Your task to perform on an android device: turn off data saver in the chrome app Image 0: 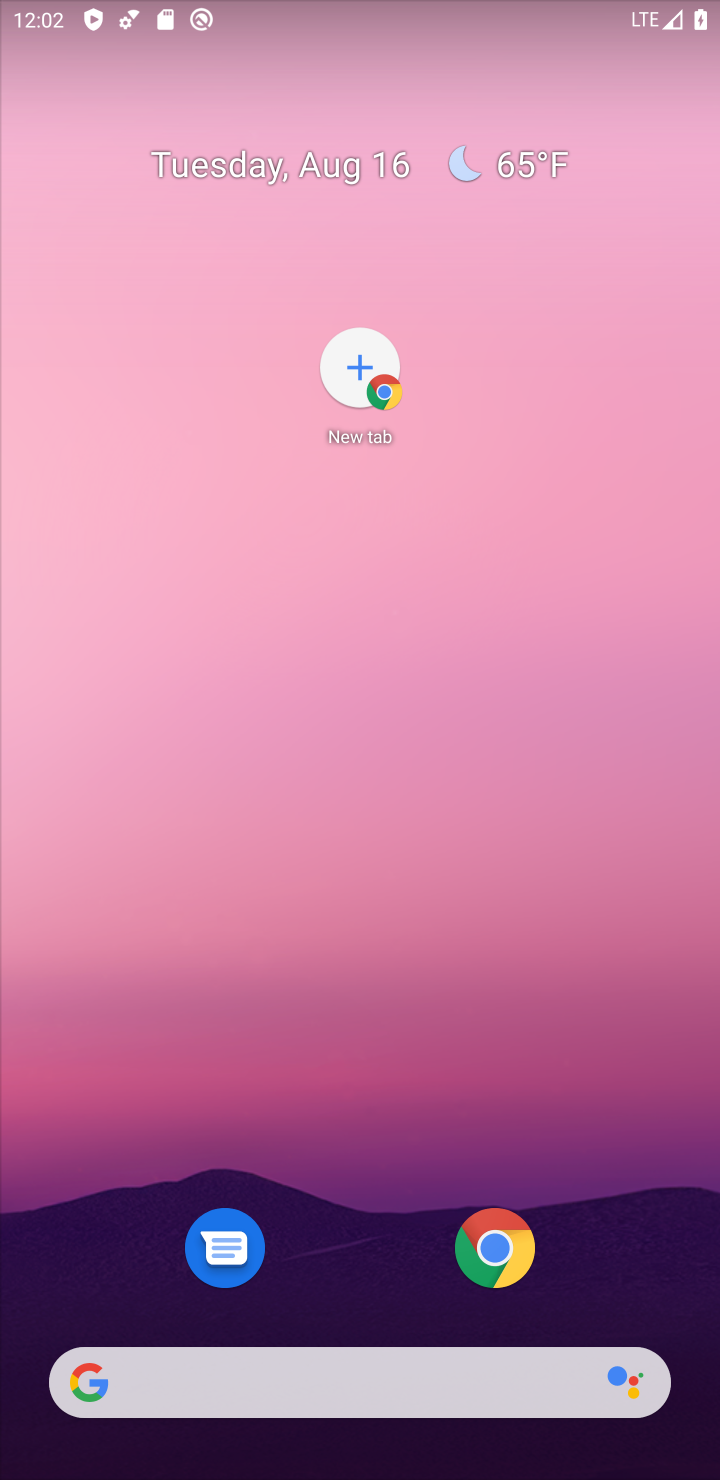
Step 0: click (516, 1268)
Your task to perform on an android device: turn off data saver in the chrome app Image 1: 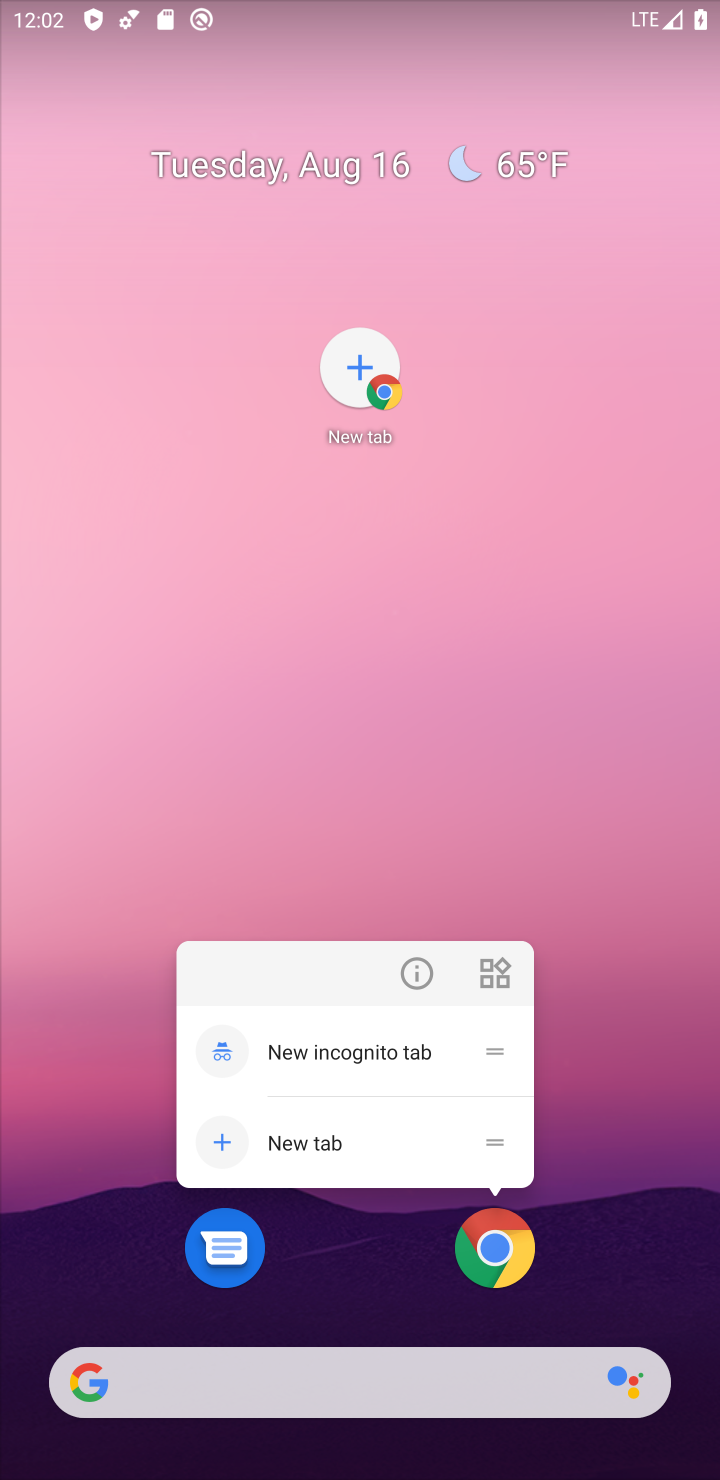
Step 1: click (491, 1266)
Your task to perform on an android device: turn off data saver in the chrome app Image 2: 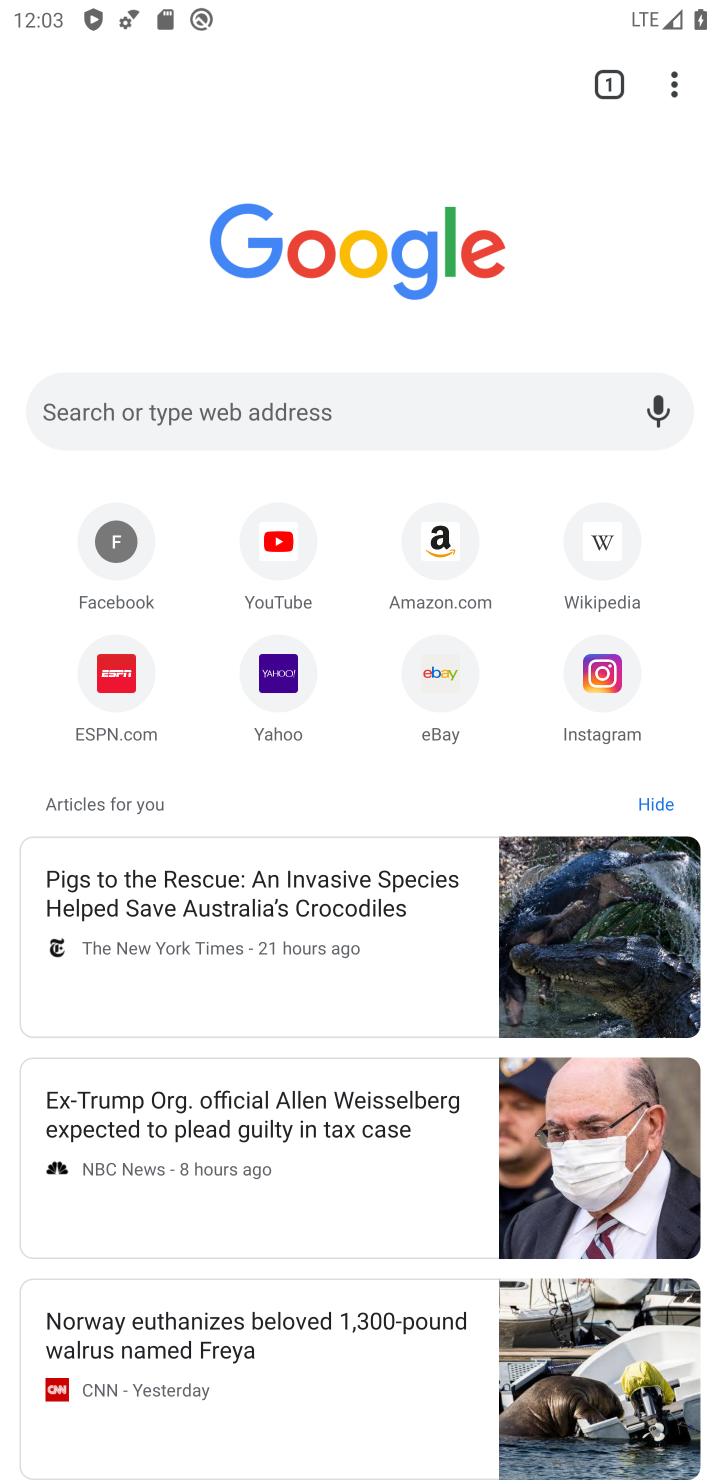
Step 2: click (672, 71)
Your task to perform on an android device: turn off data saver in the chrome app Image 3: 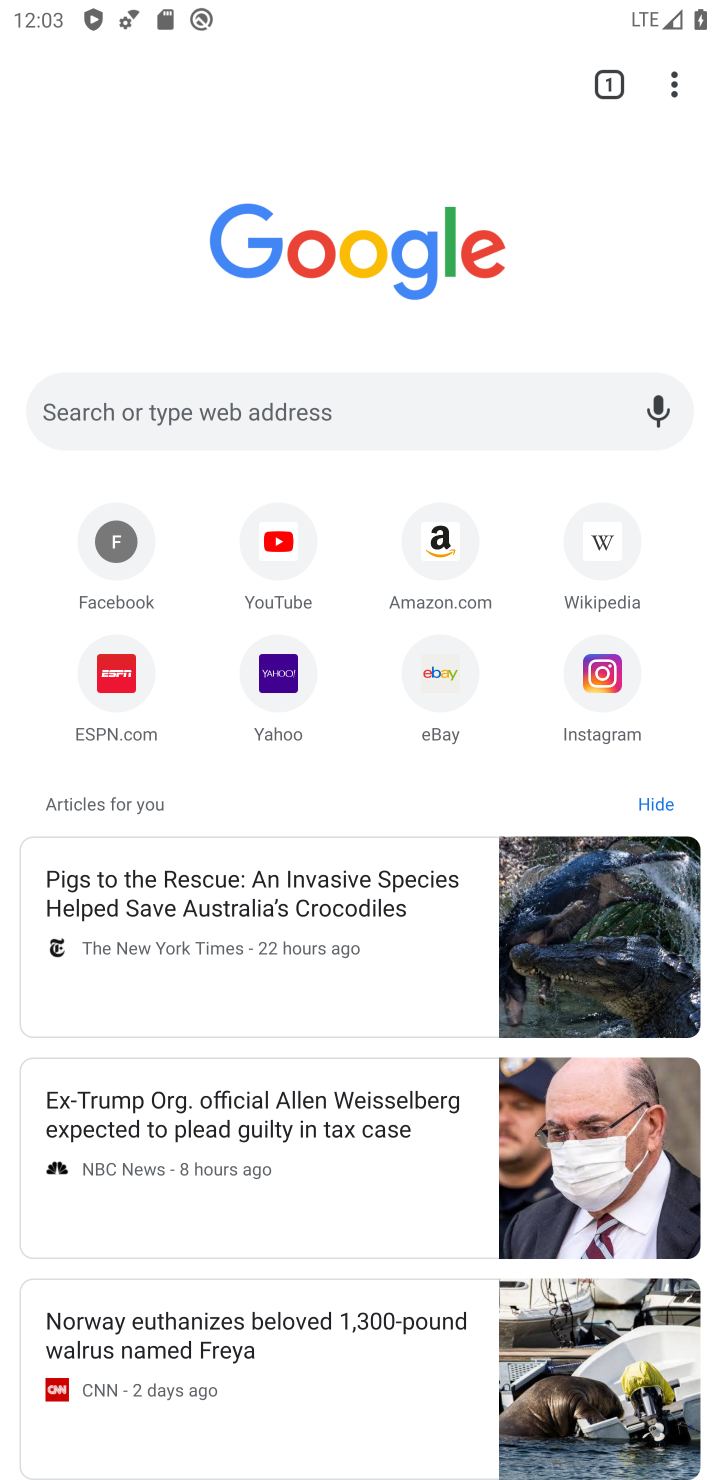
Step 3: click (688, 96)
Your task to perform on an android device: turn off data saver in the chrome app Image 4: 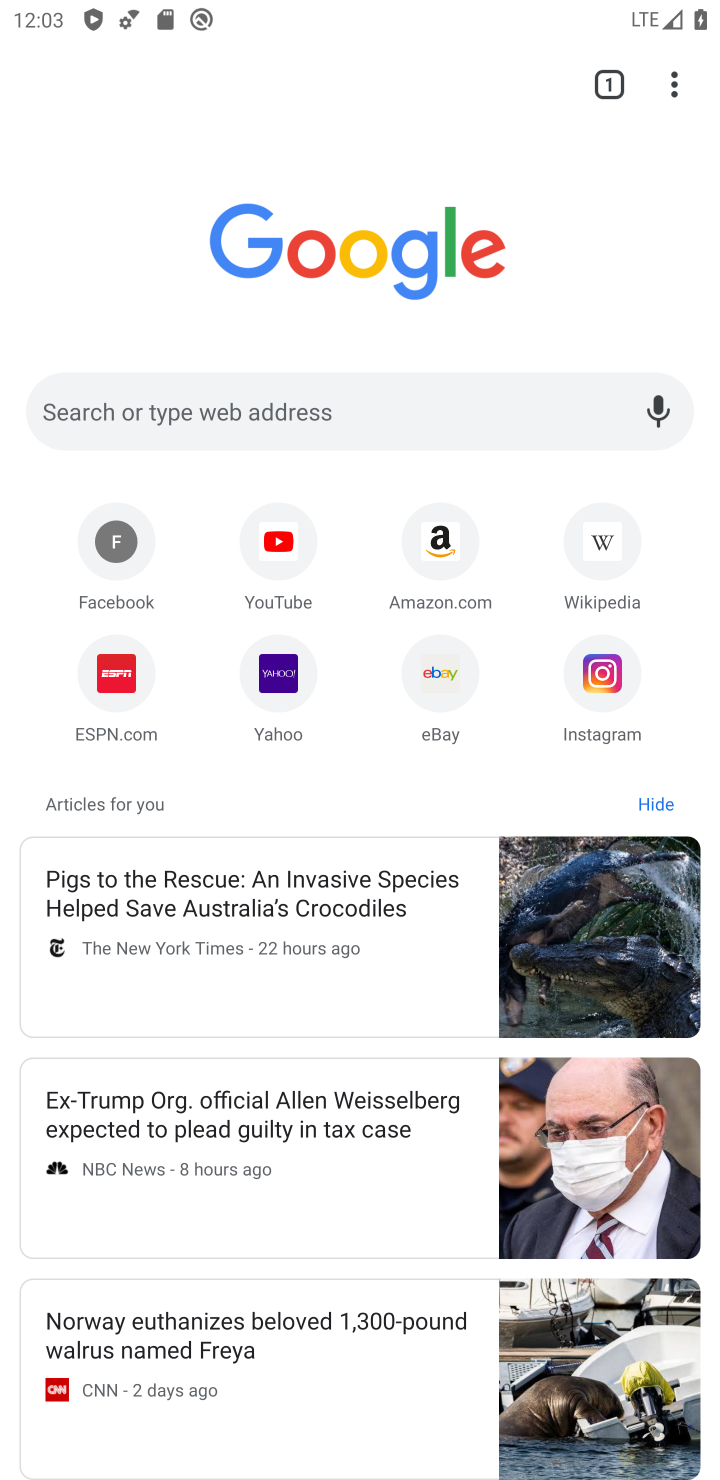
Step 4: click (680, 100)
Your task to perform on an android device: turn off data saver in the chrome app Image 5: 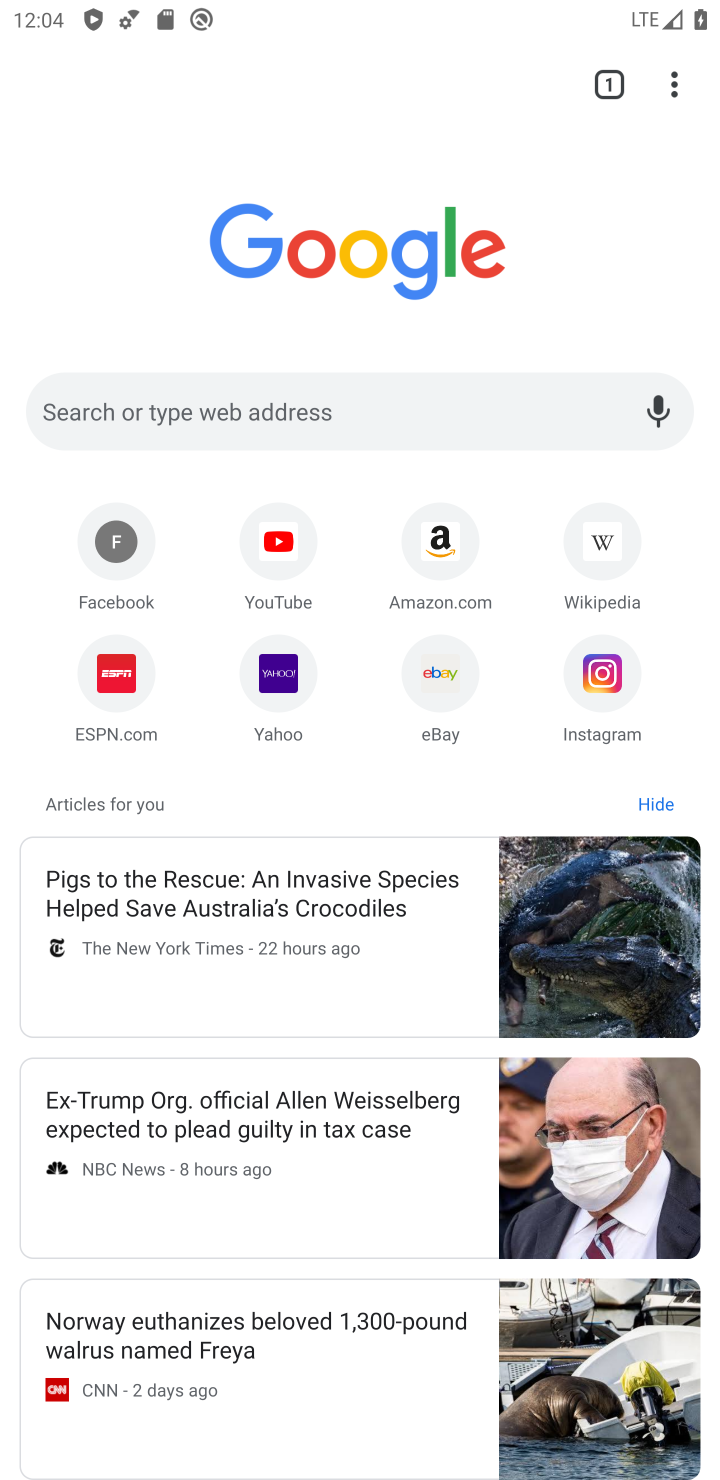
Step 5: task complete